Your task to perform on an android device: change alarm snooze length Image 0: 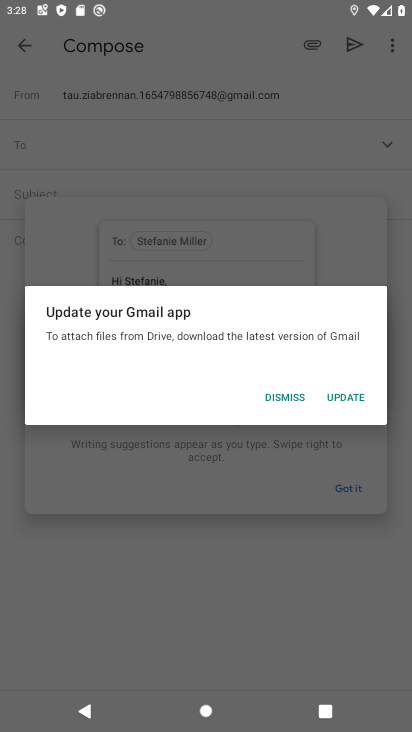
Step 0: press home button
Your task to perform on an android device: change alarm snooze length Image 1: 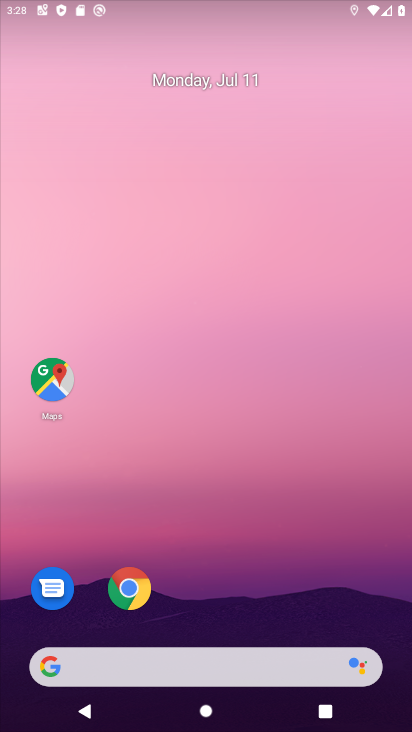
Step 1: drag from (203, 650) to (219, 478)
Your task to perform on an android device: change alarm snooze length Image 2: 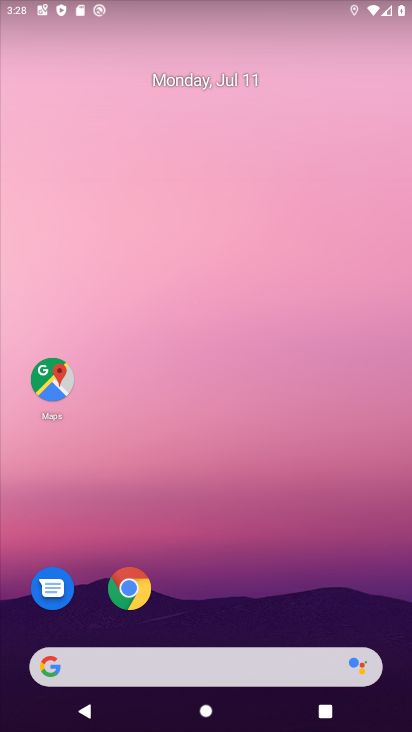
Step 2: drag from (279, 494) to (279, 353)
Your task to perform on an android device: change alarm snooze length Image 3: 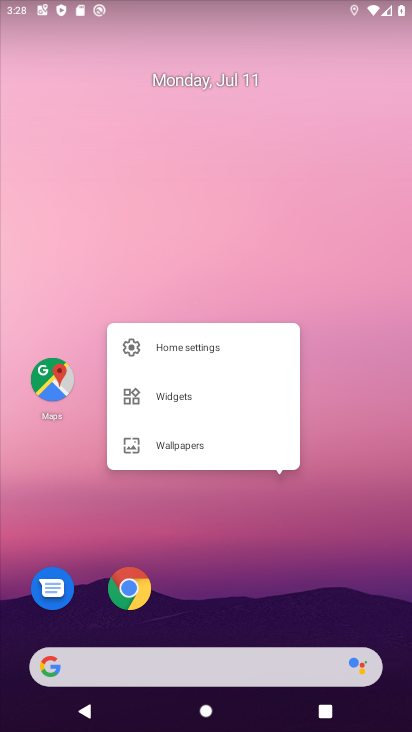
Step 3: drag from (328, 636) to (327, 202)
Your task to perform on an android device: change alarm snooze length Image 4: 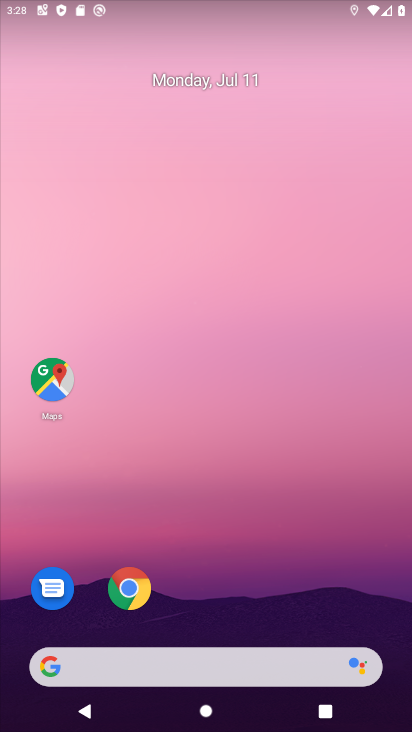
Step 4: drag from (187, 579) to (206, 219)
Your task to perform on an android device: change alarm snooze length Image 5: 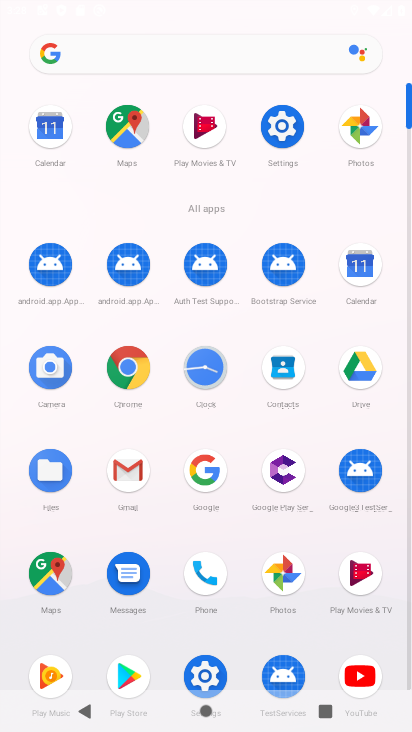
Step 5: click (206, 366)
Your task to perform on an android device: change alarm snooze length Image 6: 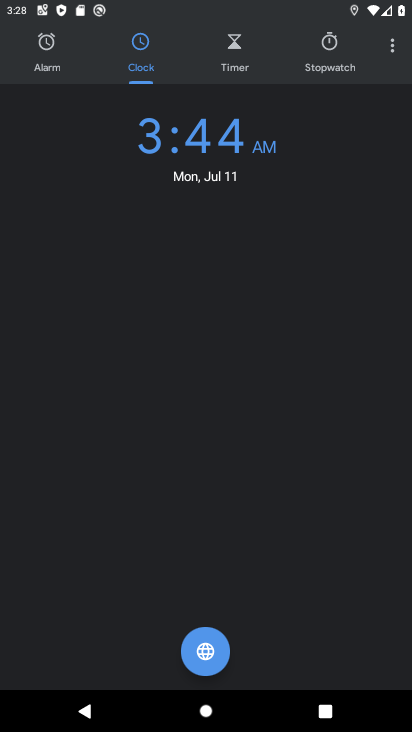
Step 6: click (388, 43)
Your task to perform on an android device: change alarm snooze length Image 7: 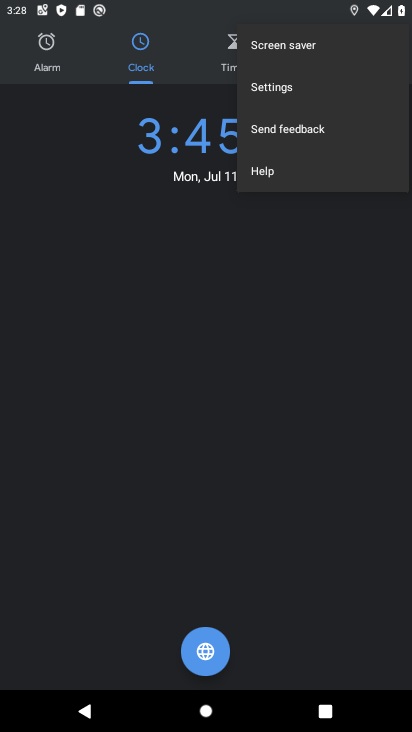
Step 7: click (279, 87)
Your task to perform on an android device: change alarm snooze length Image 8: 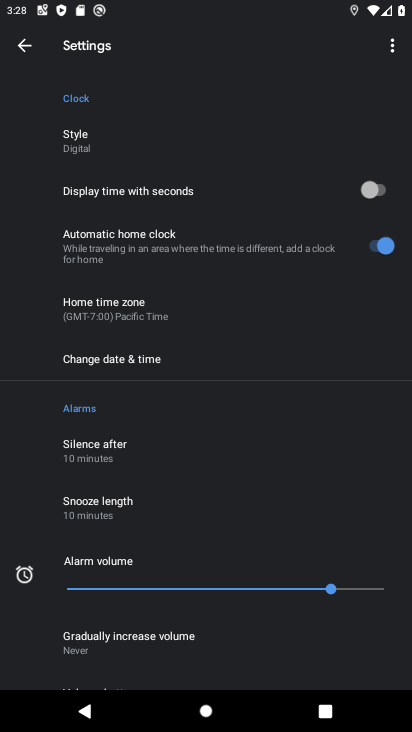
Step 8: click (104, 507)
Your task to perform on an android device: change alarm snooze length Image 9: 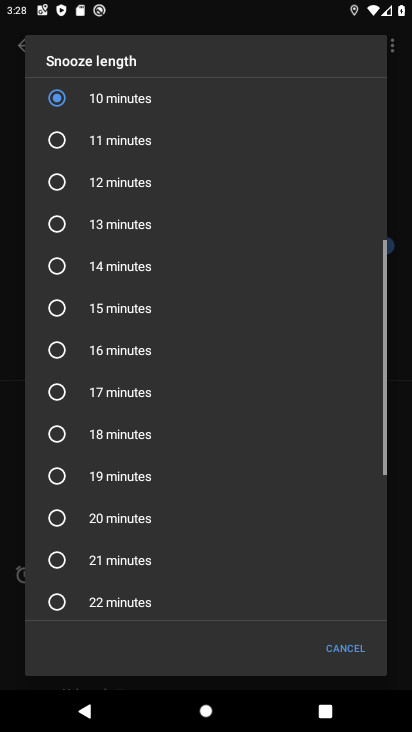
Step 9: click (100, 139)
Your task to perform on an android device: change alarm snooze length Image 10: 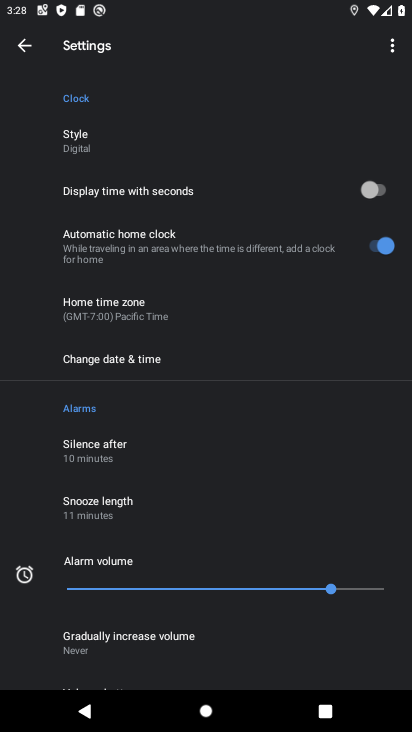
Step 10: task complete